Your task to perform on an android device: Open Chrome and go to the settings page Image 0: 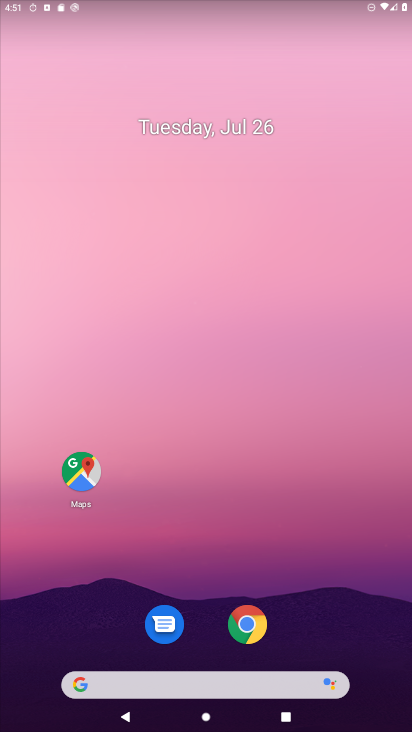
Step 0: drag from (220, 689) to (264, 24)
Your task to perform on an android device: Open Chrome and go to the settings page Image 1: 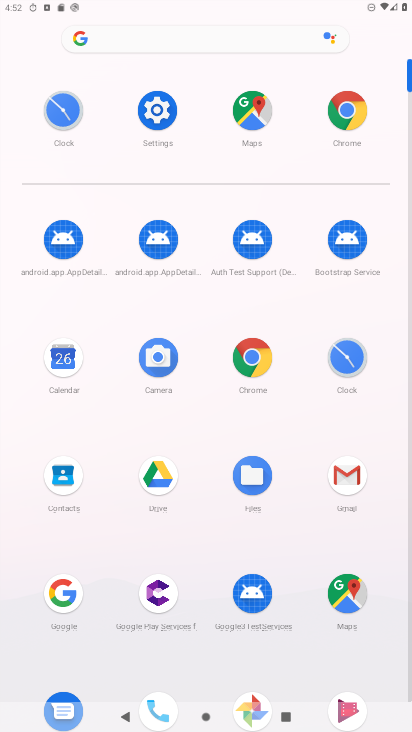
Step 1: click (248, 354)
Your task to perform on an android device: Open Chrome and go to the settings page Image 2: 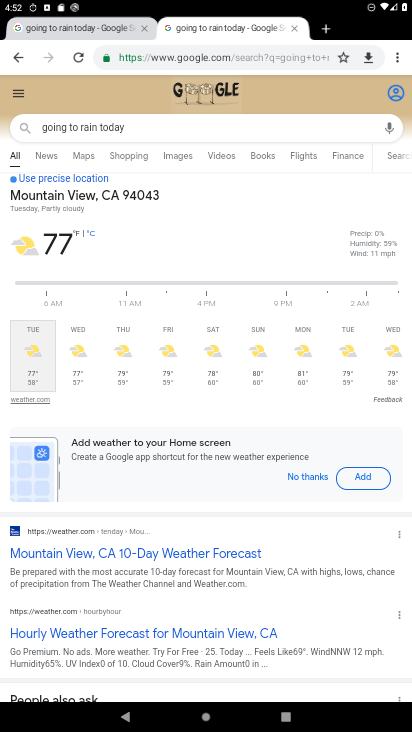
Step 2: click (393, 54)
Your task to perform on an android device: Open Chrome and go to the settings page Image 3: 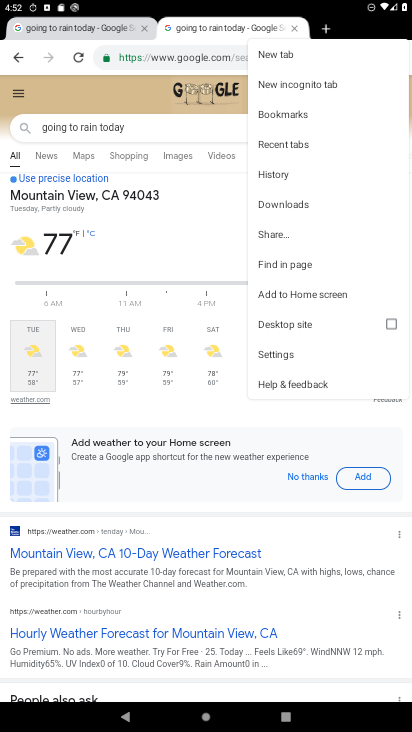
Step 3: click (277, 357)
Your task to perform on an android device: Open Chrome and go to the settings page Image 4: 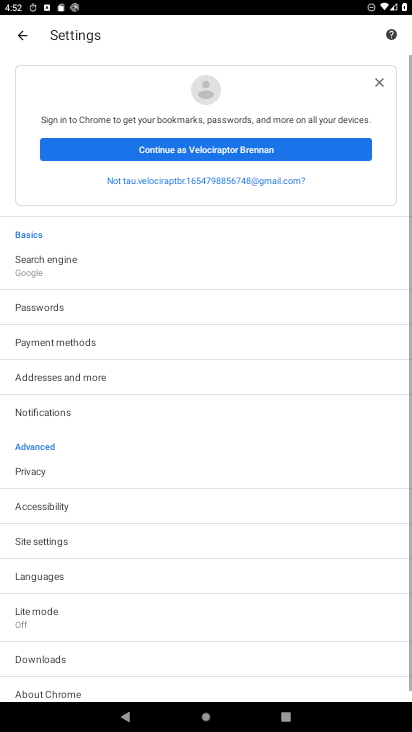
Step 4: task complete